Your task to perform on an android device: Go to privacy settings Image 0: 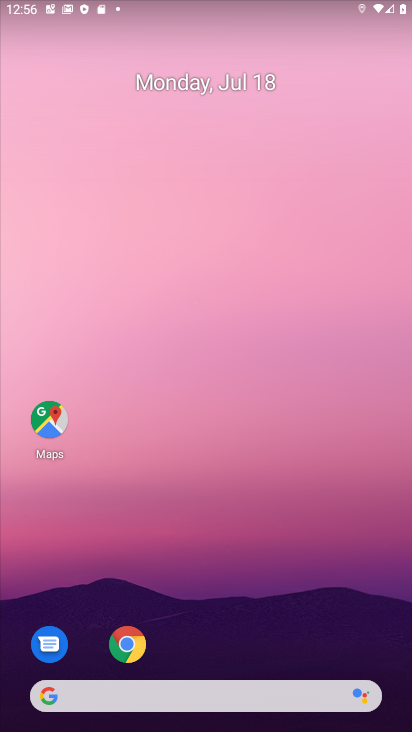
Step 0: drag from (284, 620) to (295, 87)
Your task to perform on an android device: Go to privacy settings Image 1: 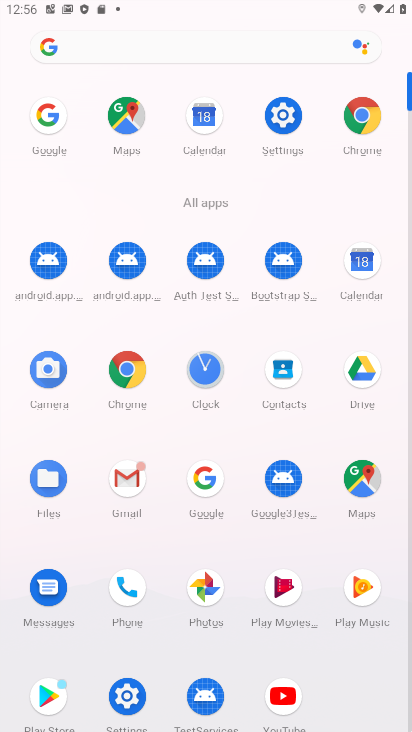
Step 1: click (121, 694)
Your task to perform on an android device: Go to privacy settings Image 2: 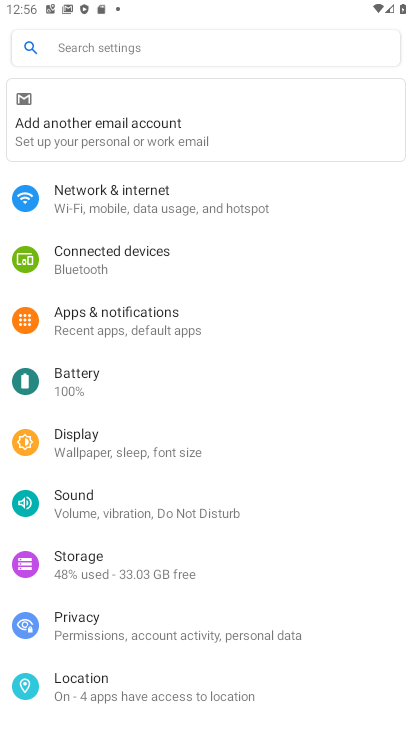
Step 2: click (107, 626)
Your task to perform on an android device: Go to privacy settings Image 3: 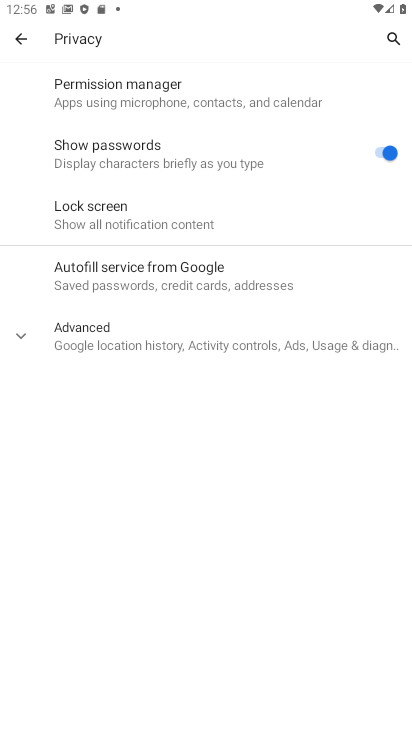
Step 3: task complete